Your task to perform on an android device: What's the weather going to be this weekend? Image 0: 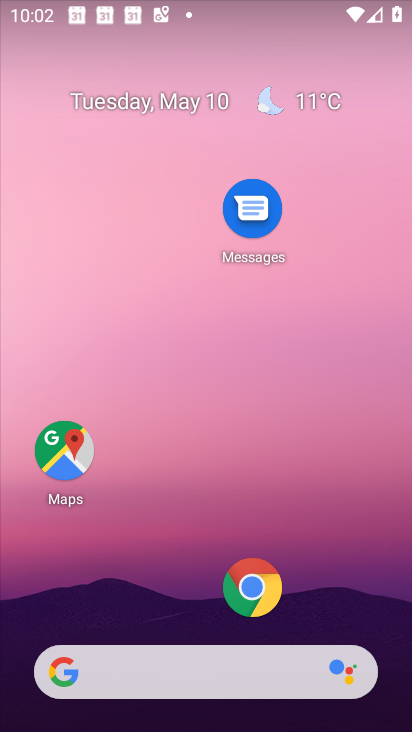
Step 0: click (332, 99)
Your task to perform on an android device: What's the weather going to be this weekend? Image 1: 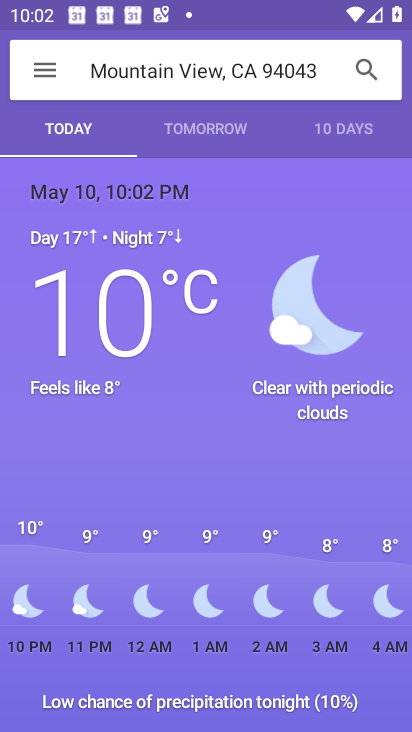
Step 1: click (325, 133)
Your task to perform on an android device: What's the weather going to be this weekend? Image 2: 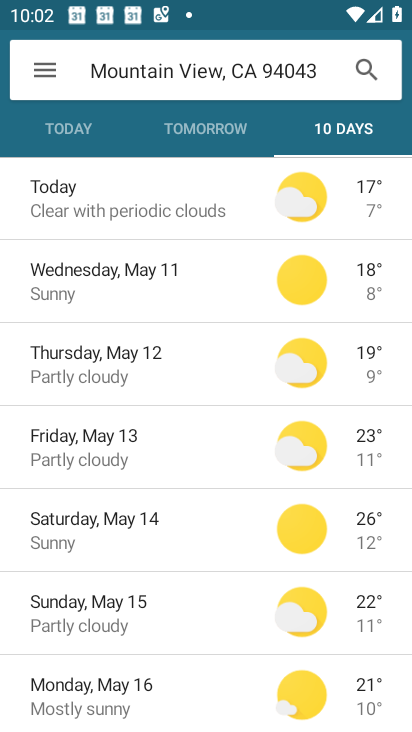
Step 2: task complete